Your task to perform on an android device: clear history in the chrome app Image 0: 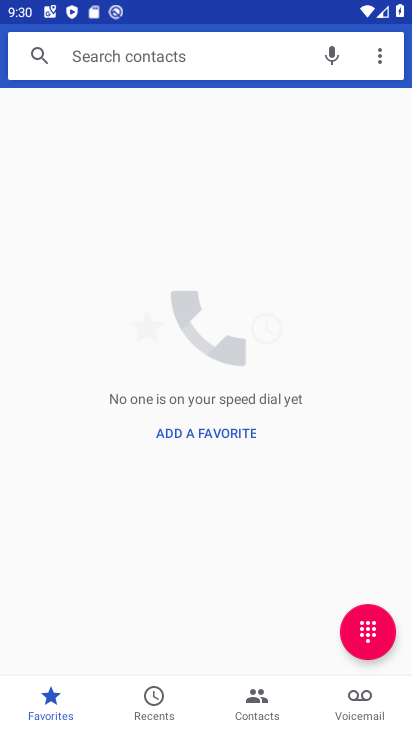
Step 0: press home button
Your task to perform on an android device: clear history in the chrome app Image 1: 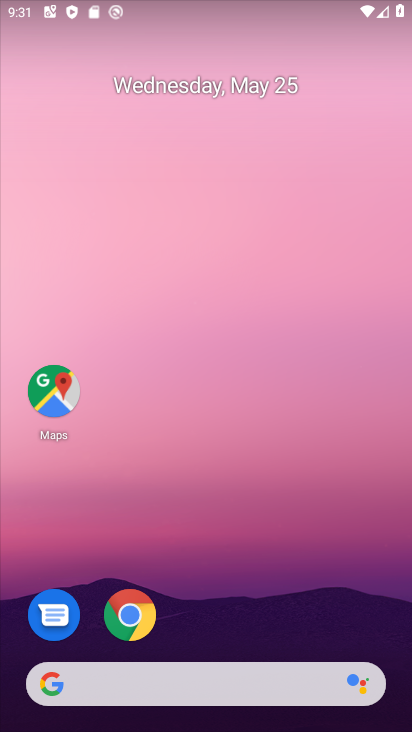
Step 1: click (138, 610)
Your task to perform on an android device: clear history in the chrome app Image 2: 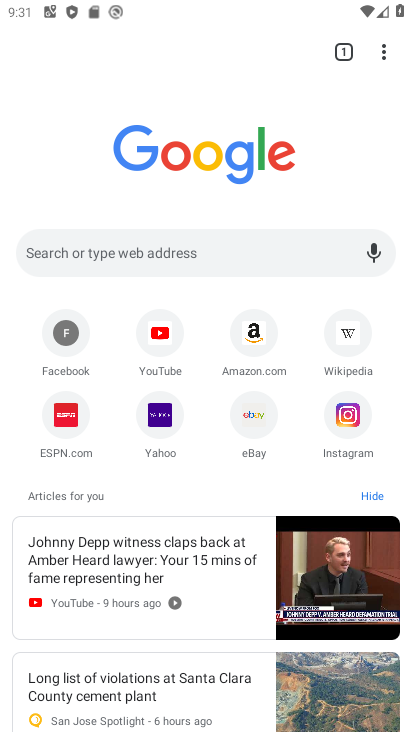
Step 2: click (381, 57)
Your task to perform on an android device: clear history in the chrome app Image 3: 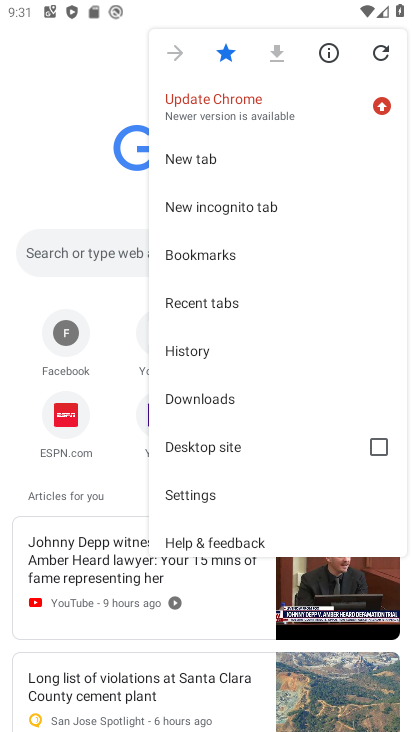
Step 3: click (212, 347)
Your task to perform on an android device: clear history in the chrome app Image 4: 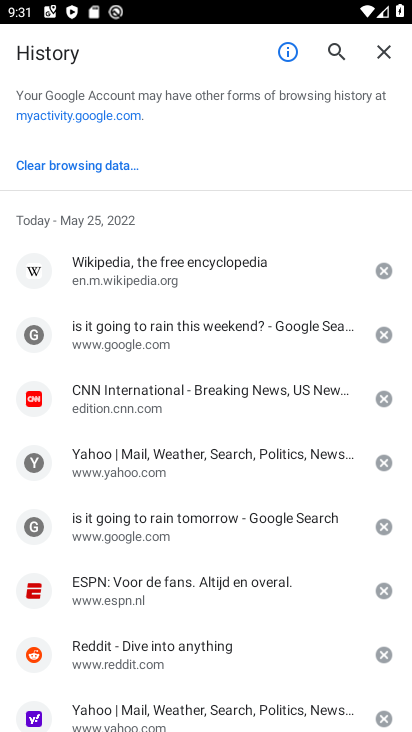
Step 4: click (117, 156)
Your task to perform on an android device: clear history in the chrome app Image 5: 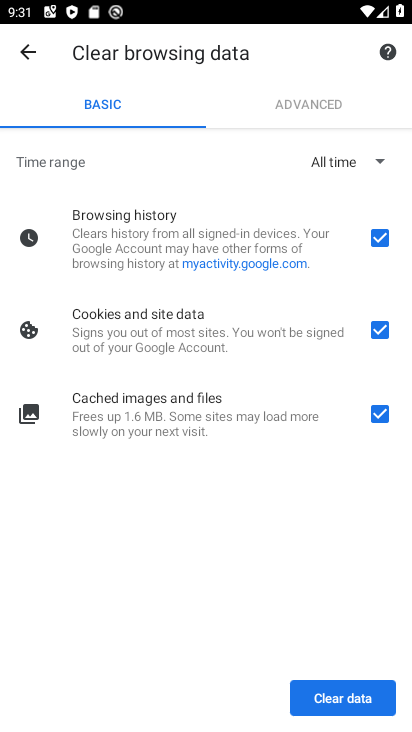
Step 5: click (382, 326)
Your task to perform on an android device: clear history in the chrome app Image 6: 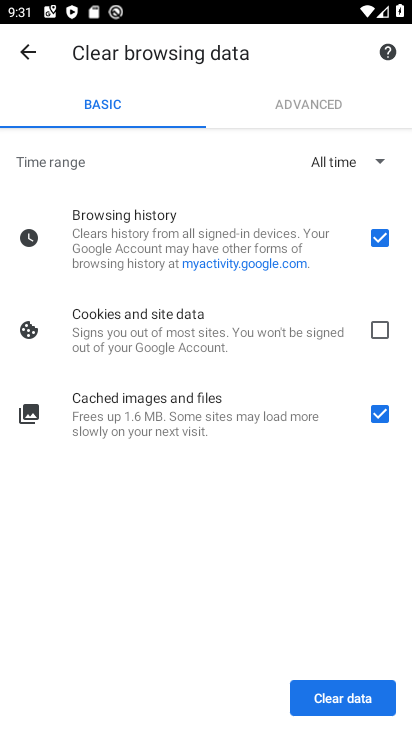
Step 6: click (380, 411)
Your task to perform on an android device: clear history in the chrome app Image 7: 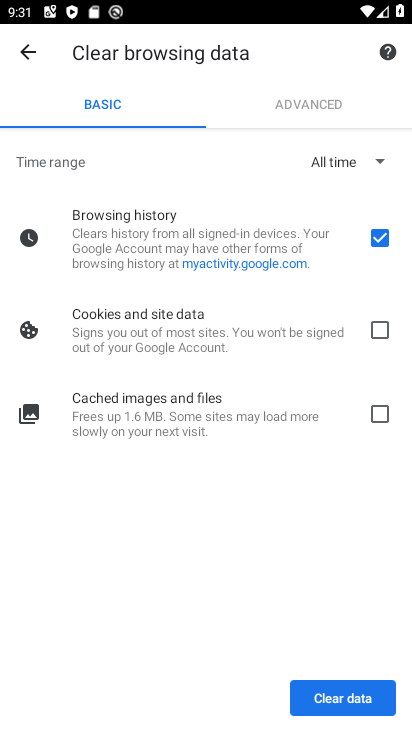
Step 7: click (363, 688)
Your task to perform on an android device: clear history in the chrome app Image 8: 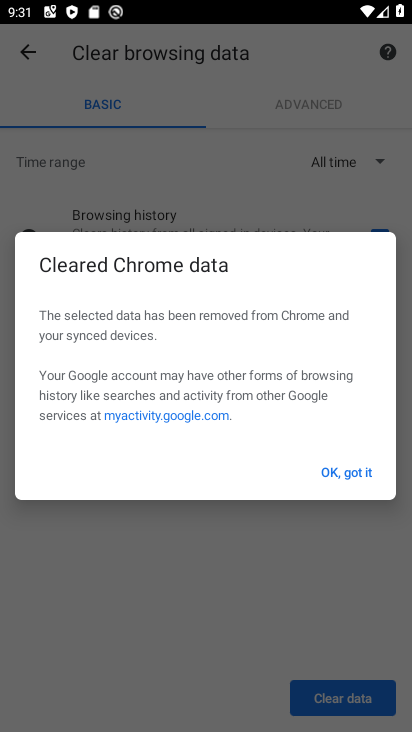
Step 8: click (353, 463)
Your task to perform on an android device: clear history in the chrome app Image 9: 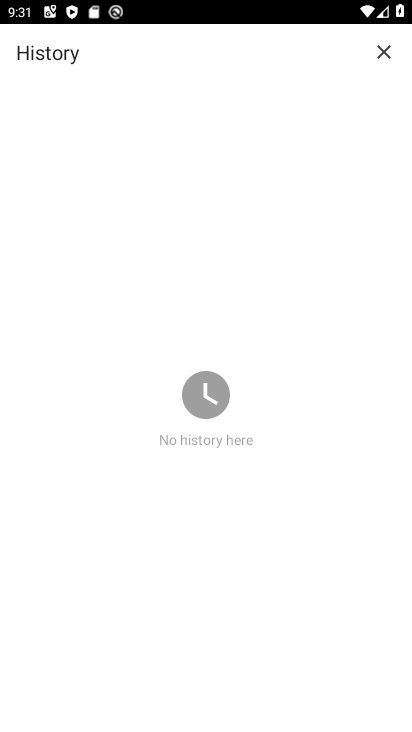
Step 9: task complete